Your task to perform on an android device: open sync settings in chrome Image 0: 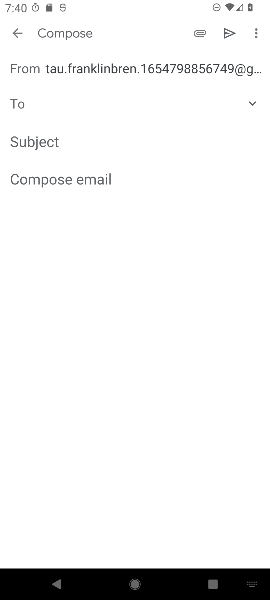
Step 0: press home button
Your task to perform on an android device: open sync settings in chrome Image 1: 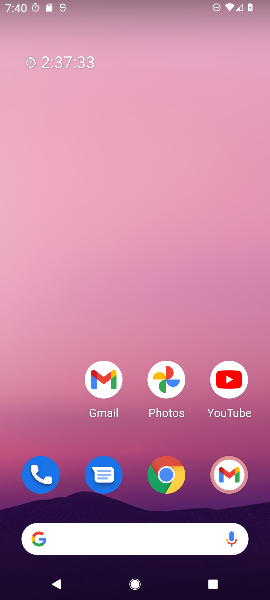
Step 1: drag from (60, 424) to (49, 196)
Your task to perform on an android device: open sync settings in chrome Image 2: 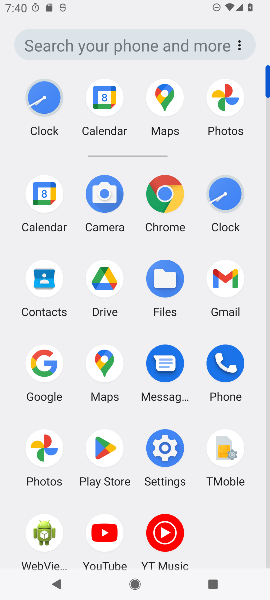
Step 2: click (178, 190)
Your task to perform on an android device: open sync settings in chrome Image 3: 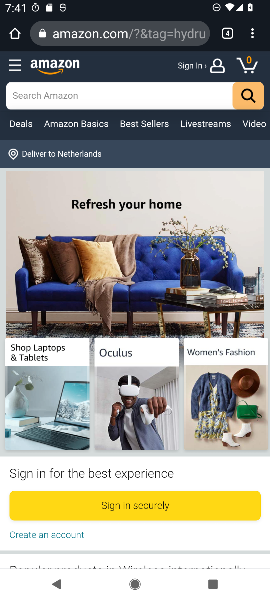
Step 3: click (252, 31)
Your task to perform on an android device: open sync settings in chrome Image 4: 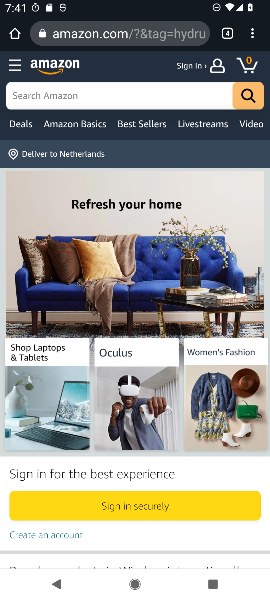
Step 4: click (251, 38)
Your task to perform on an android device: open sync settings in chrome Image 5: 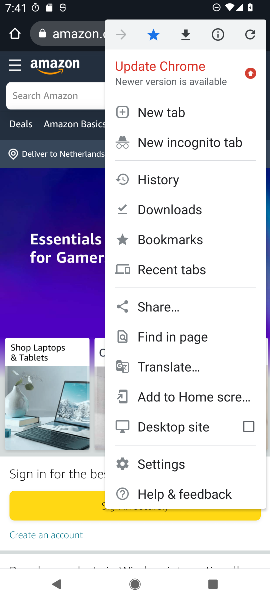
Step 5: click (177, 461)
Your task to perform on an android device: open sync settings in chrome Image 6: 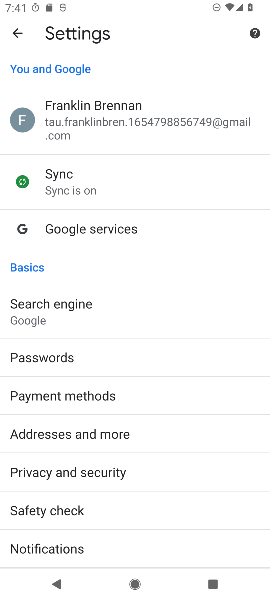
Step 6: drag from (193, 457) to (200, 342)
Your task to perform on an android device: open sync settings in chrome Image 7: 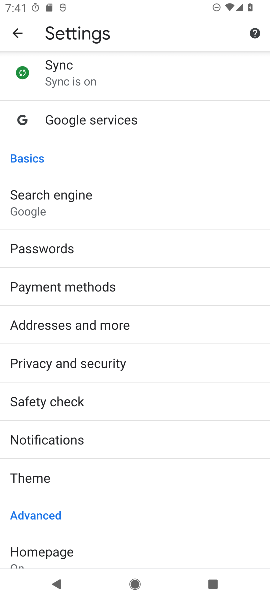
Step 7: drag from (193, 468) to (197, 314)
Your task to perform on an android device: open sync settings in chrome Image 8: 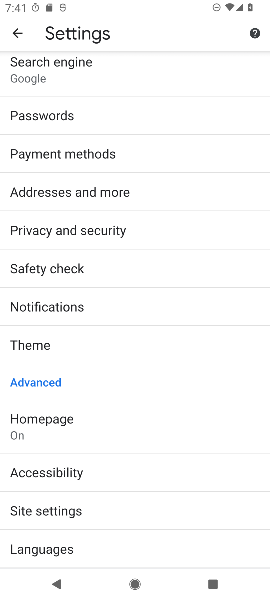
Step 8: drag from (205, 445) to (198, 333)
Your task to perform on an android device: open sync settings in chrome Image 9: 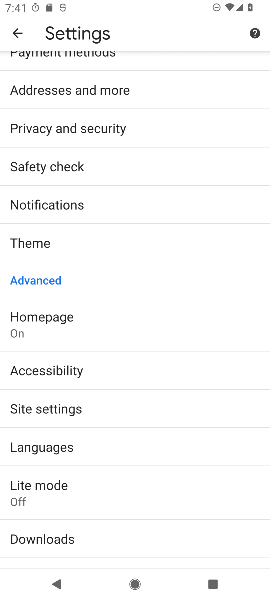
Step 9: drag from (187, 419) to (189, 339)
Your task to perform on an android device: open sync settings in chrome Image 10: 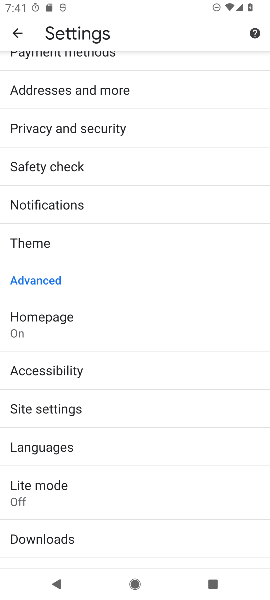
Step 10: click (180, 396)
Your task to perform on an android device: open sync settings in chrome Image 11: 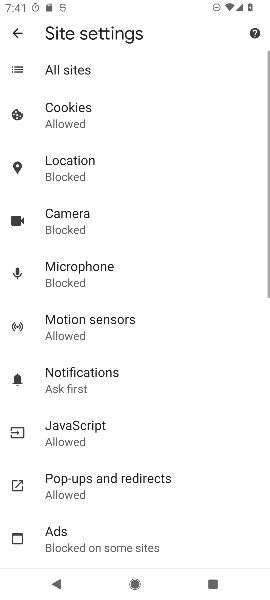
Step 11: drag from (184, 441) to (191, 362)
Your task to perform on an android device: open sync settings in chrome Image 12: 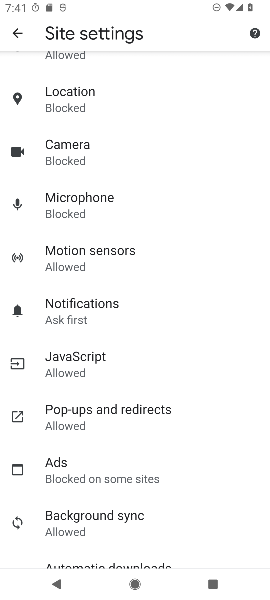
Step 12: drag from (196, 474) to (203, 380)
Your task to perform on an android device: open sync settings in chrome Image 13: 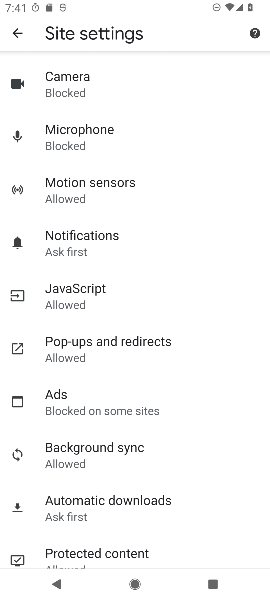
Step 13: drag from (207, 463) to (212, 357)
Your task to perform on an android device: open sync settings in chrome Image 14: 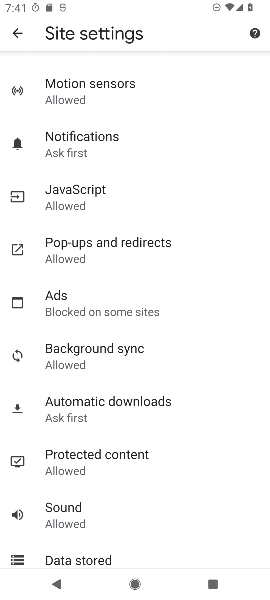
Step 14: click (141, 361)
Your task to perform on an android device: open sync settings in chrome Image 15: 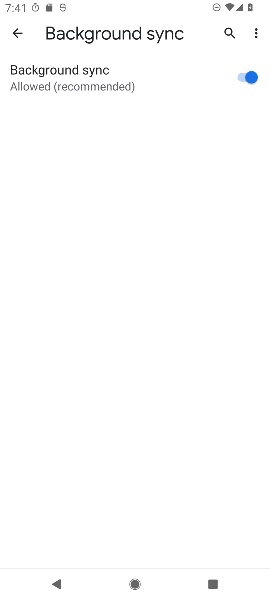
Step 15: task complete